Your task to perform on an android device: turn off improve location accuracy Image 0: 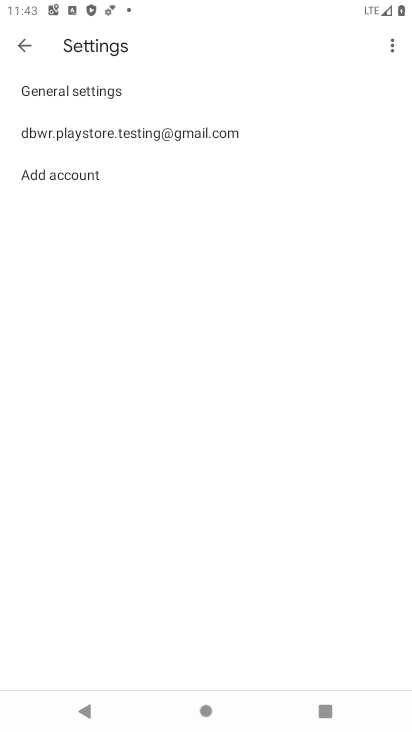
Step 0: press home button
Your task to perform on an android device: turn off improve location accuracy Image 1: 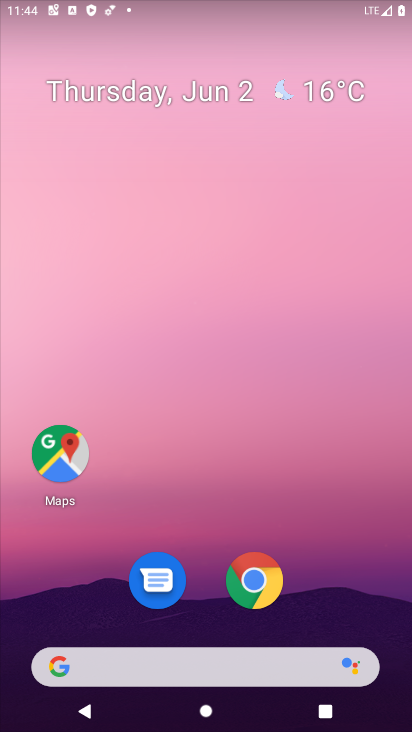
Step 1: drag from (249, 569) to (220, 34)
Your task to perform on an android device: turn off improve location accuracy Image 2: 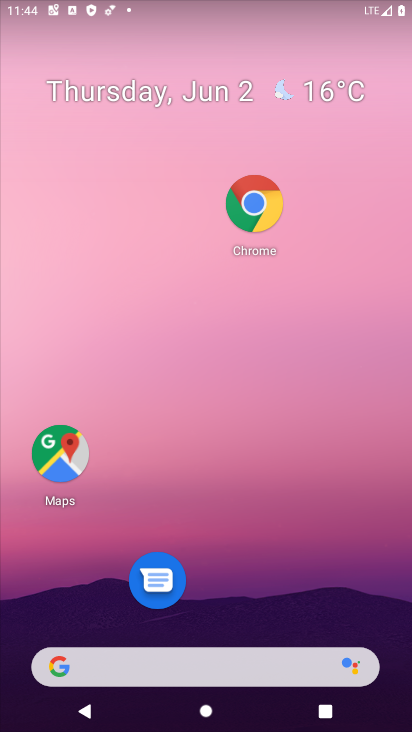
Step 2: drag from (236, 647) to (387, 237)
Your task to perform on an android device: turn off improve location accuracy Image 3: 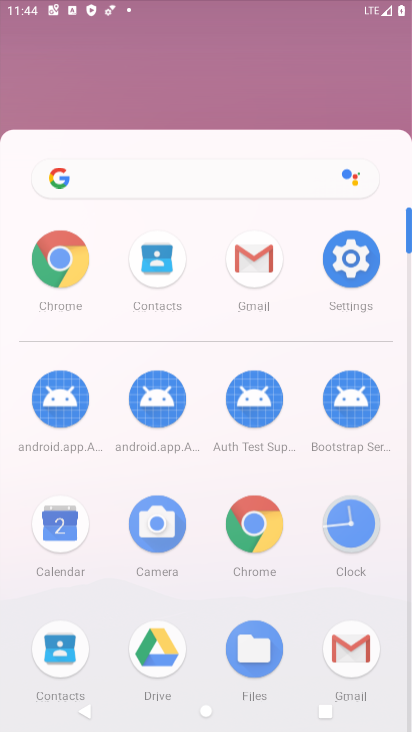
Step 3: click (351, 145)
Your task to perform on an android device: turn off improve location accuracy Image 4: 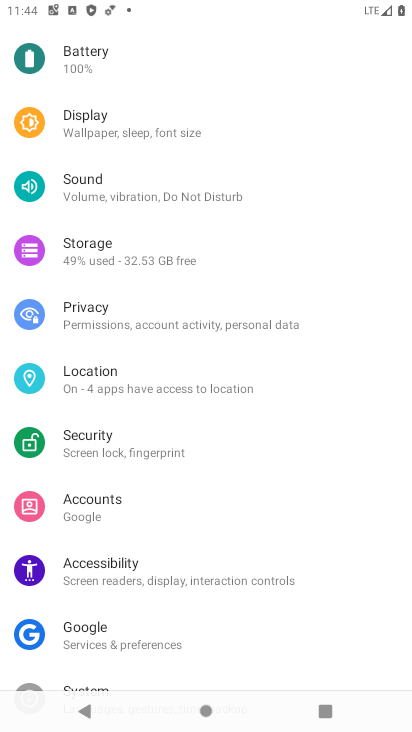
Step 4: click (146, 376)
Your task to perform on an android device: turn off improve location accuracy Image 5: 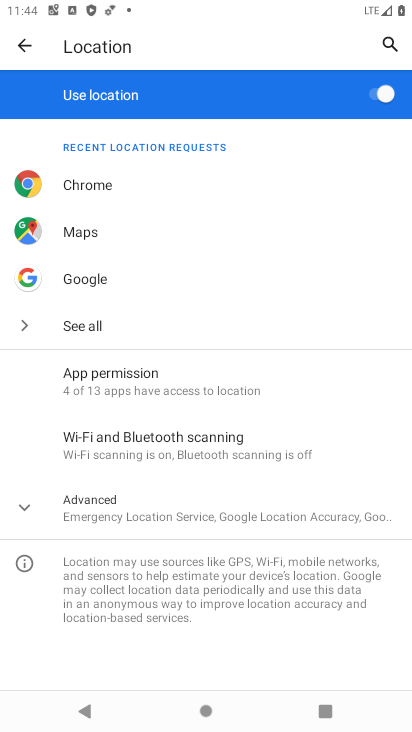
Step 5: click (176, 502)
Your task to perform on an android device: turn off improve location accuracy Image 6: 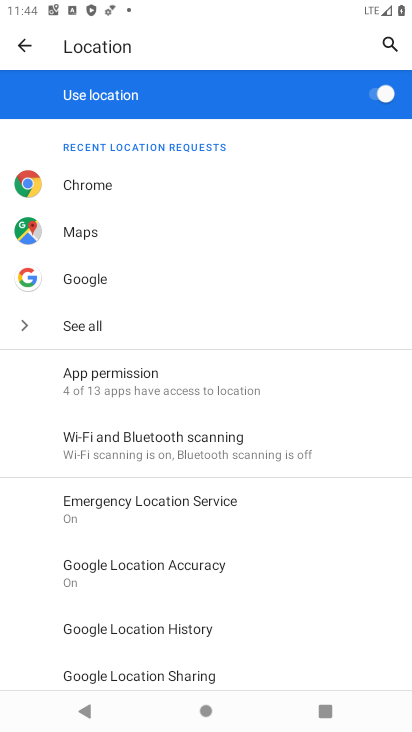
Step 6: click (185, 579)
Your task to perform on an android device: turn off improve location accuracy Image 7: 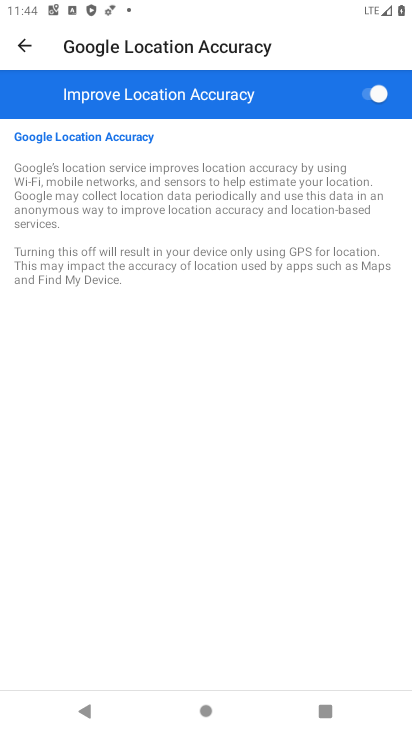
Step 7: click (375, 89)
Your task to perform on an android device: turn off improve location accuracy Image 8: 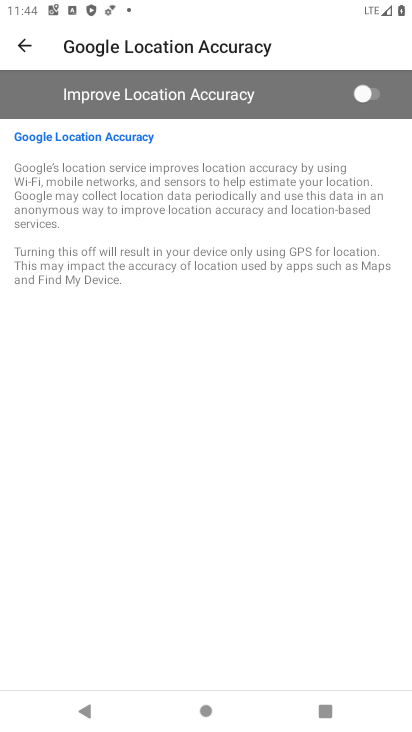
Step 8: task complete